Your task to perform on an android device: open device folders in google photos Image 0: 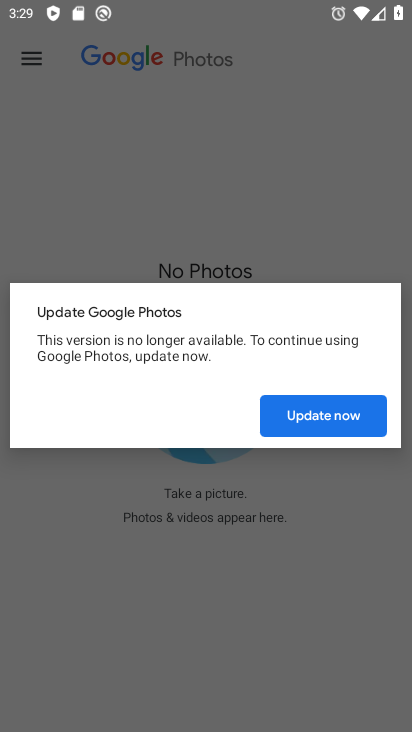
Step 0: press home button
Your task to perform on an android device: open device folders in google photos Image 1: 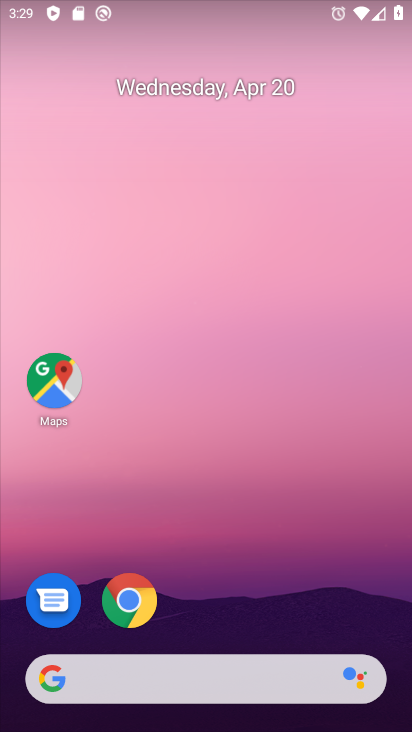
Step 1: drag from (288, 636) to (210, 142)
Your task to perform on an android device: open device folders in google photos Image 2: 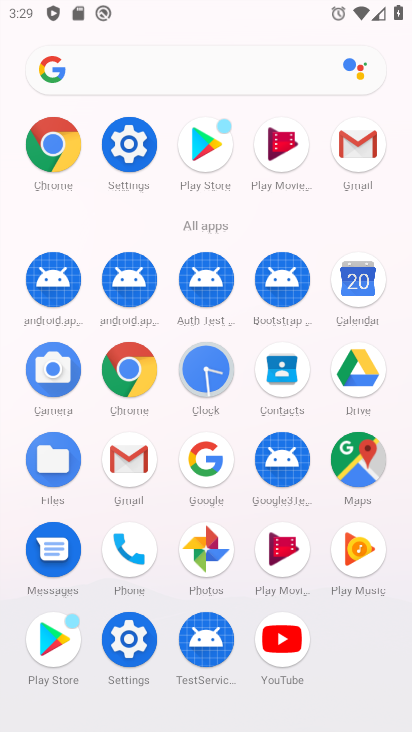
Step 2: click (200, 537)
Your task to perform on an android device: open device folders in google photos Image 3: 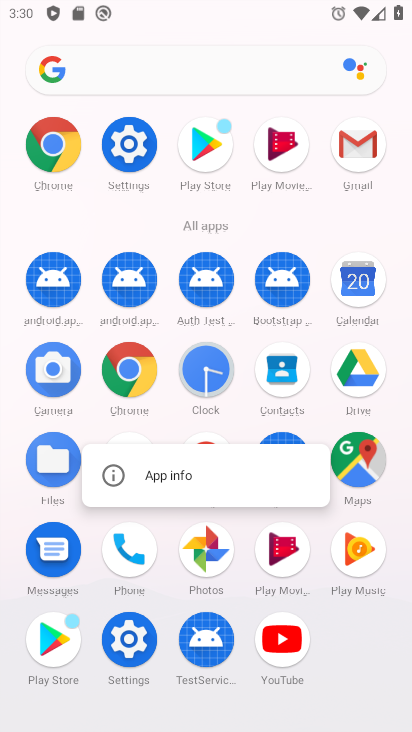
Step 3: click (203, 551)
Your task to perform on an android device: open device folders in google photos Image 4: 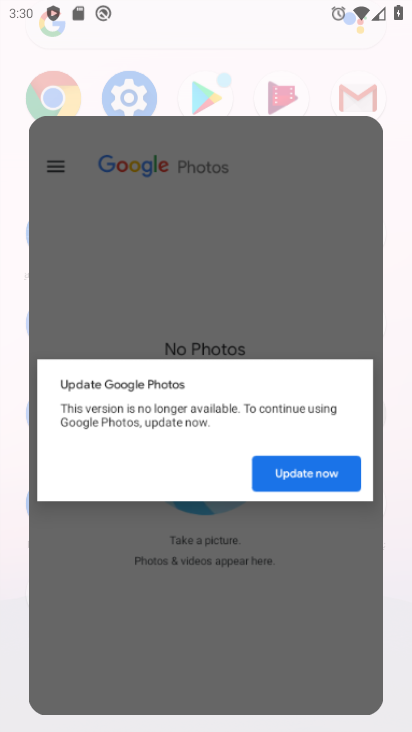
Step 4: click (202, 551)
Your task to perform on an android device: open device folders in google photos Image 5: 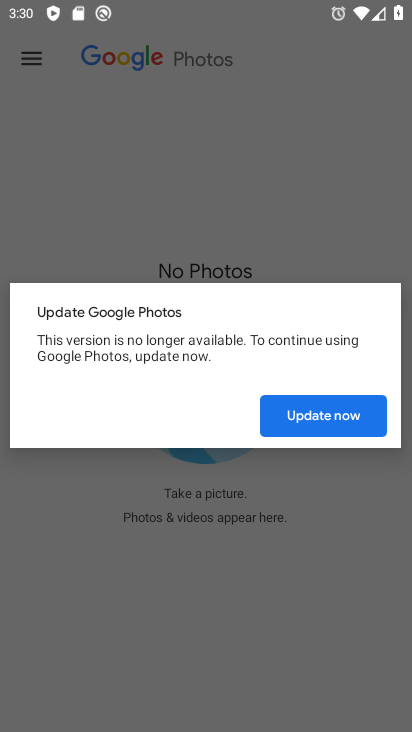
Step 5: click (316, 411)
Your task to perform on an android device: open device folders in google photos Image 6: 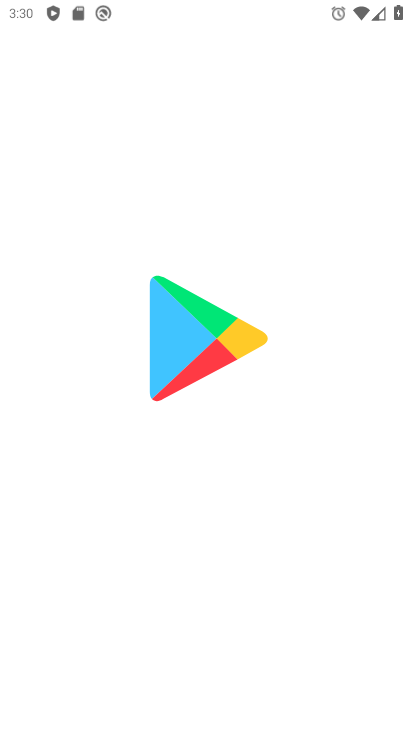
Step 6: press back button
Your task to perform on an android device: open device folders in google photos Image 7: 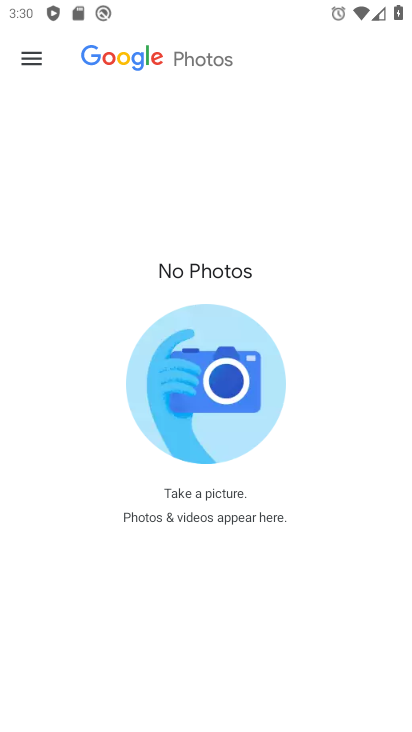
Step 7: click (154, 536)
Your task to perform on an android device: open device folders in google photos Image 8: 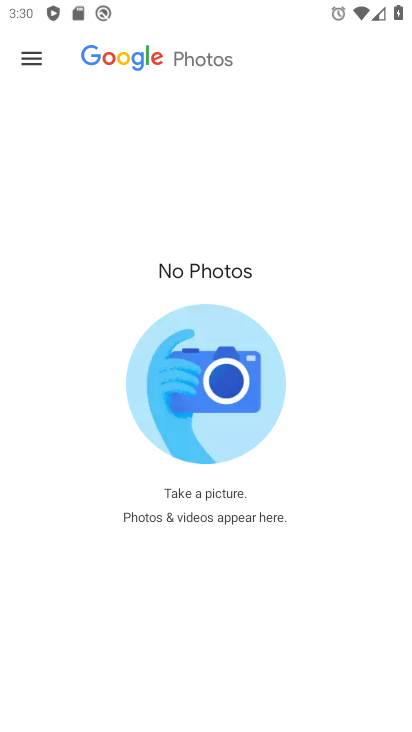
Step 8: drag from (151, 530) to (94, 348)
Your task to perform on an android device: open device folders in google photos Image 9: 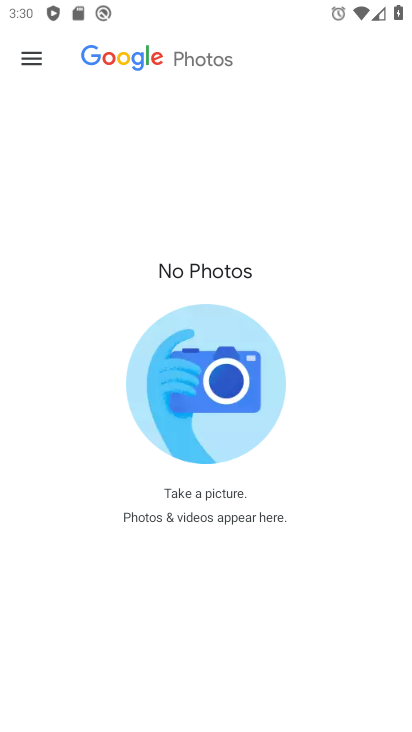
Step 9: click (31, 53)
Your task to perform on an android device: open device folders in google photos Image 10: 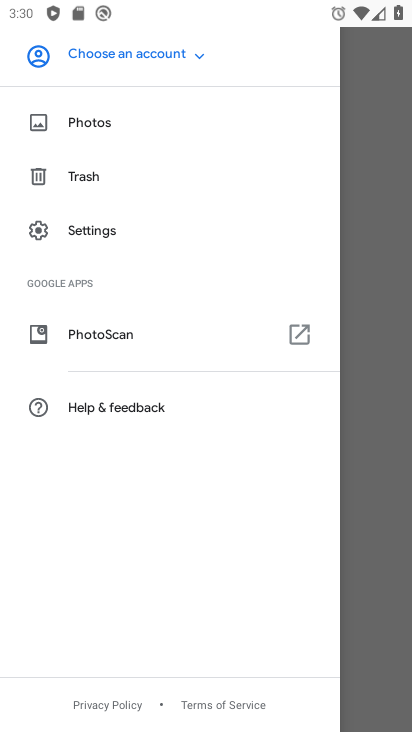
Step 10: click (374, 204)
Your task to perform on an android device: open device folders in google photos Image 11: 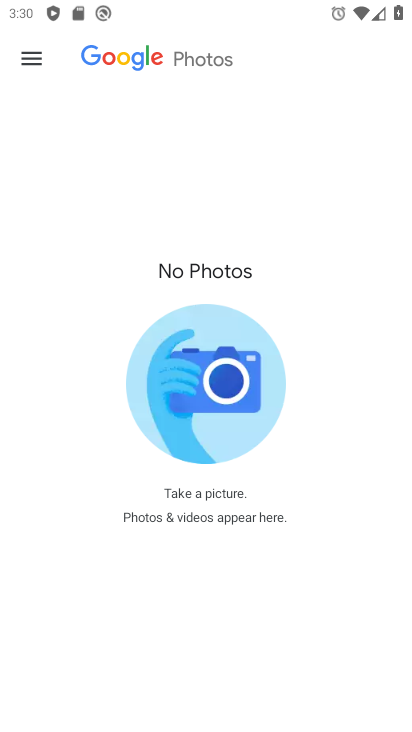
Step 11: click (365, 200)
Your task to perform on an android device: open device folders in google photos Image 12: 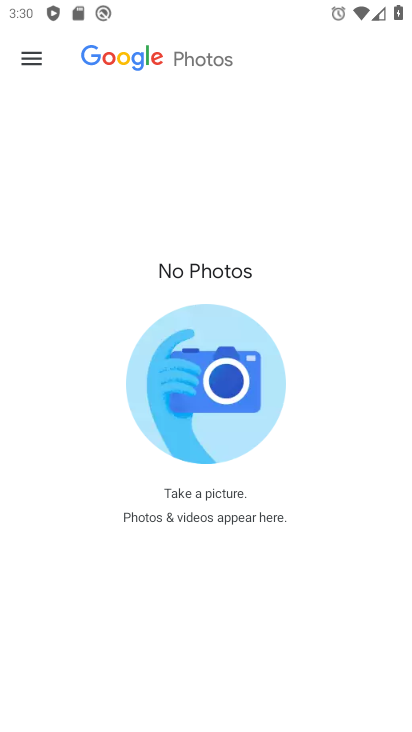
Step 12: click (337, 217)
Your task to perform on an android device: open device folders in google photos Image 13: 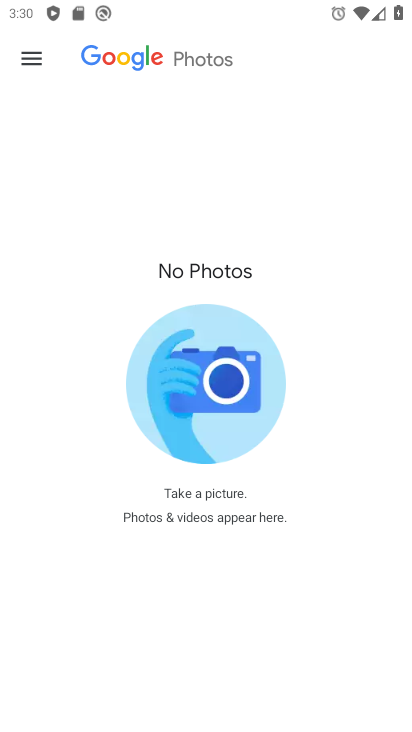
Step 13: click (292, 330)
Your task to perform on an android device: open device folders in google photos Image 14: 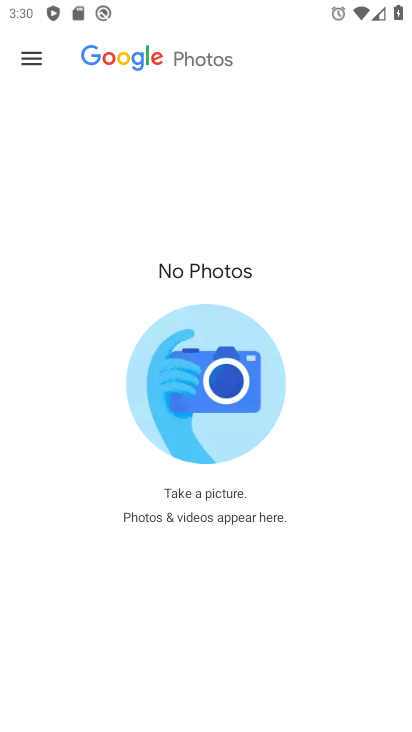
Step 14: task complete